Your task to perform on an android device: turn off sleep mode Image 0: 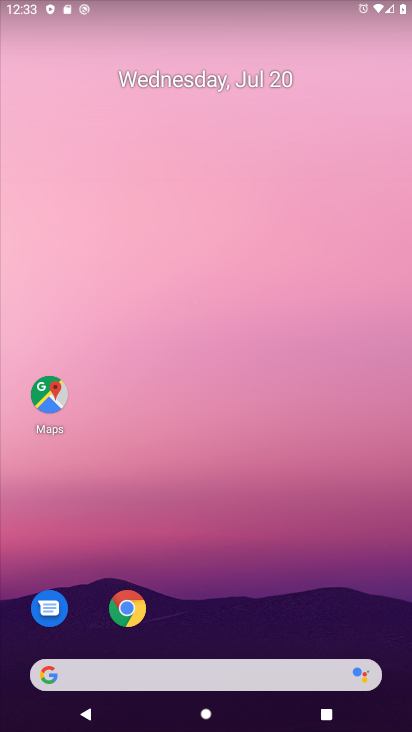
Step 0: drag from (212, 669) to (305, 151)
Your task to perform on an android device: turn off sleep mode Image 1: 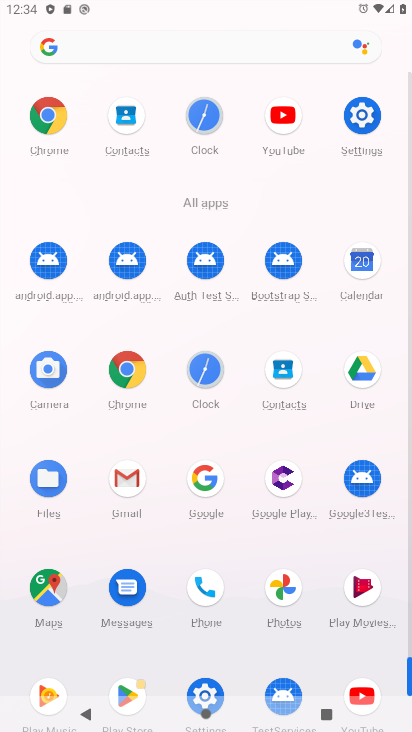
Step 1: click (361, 114)
Your task to perform on an android device: turn off sleep mode Image 2: 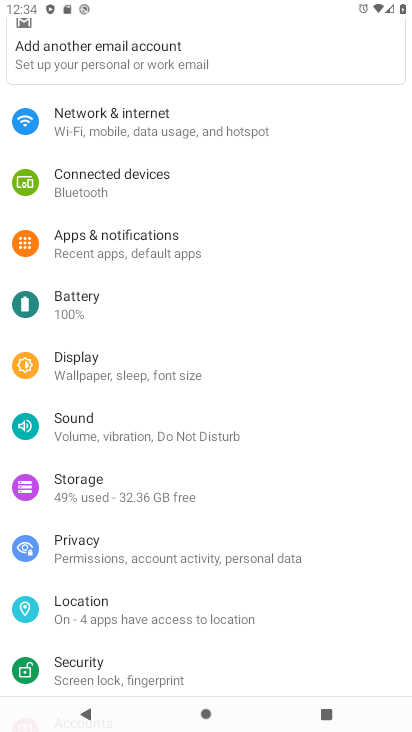
Step 2: click (78, 366)
Your task to perform on an android device: turn off sleep mode Image 3: 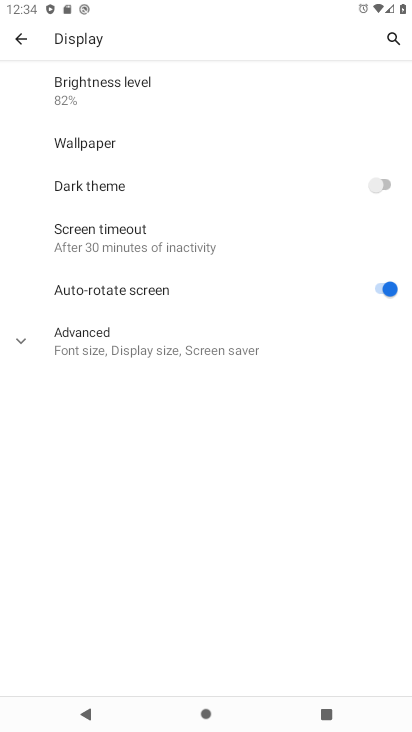
Step 3: click (129, 293)
Your task to perform on an android device: turn off sleep mode Image 4: 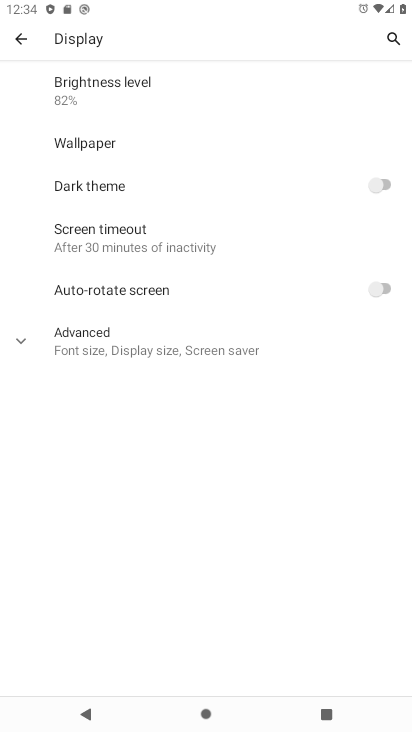
Step 4: click (150, 350)
Your task to perform on an android device: turn off sleep mode Image 5: 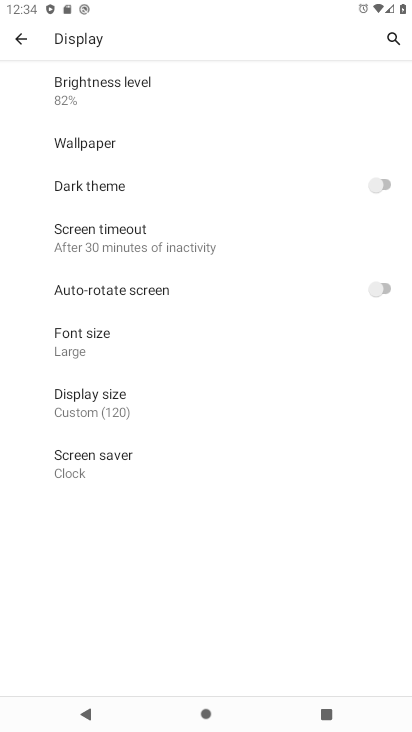
Step 5: task complete